Your task to perform on an android device: toggle show notifications on the lock screen Image 0: 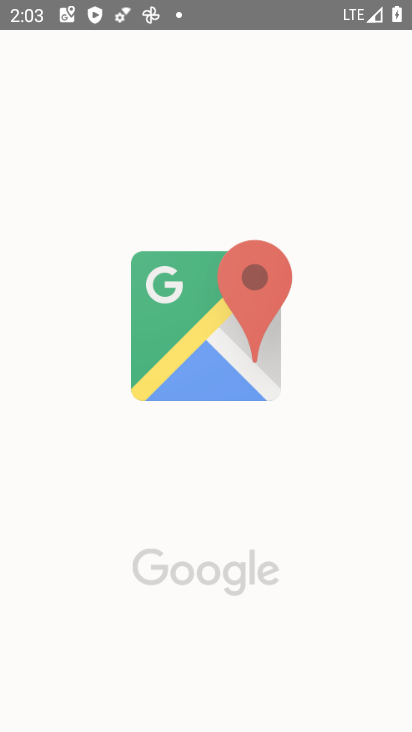
Step 0: click (257, 583)
Your task to perform on an android device: toggle show notifications on the lock screen Image 1: 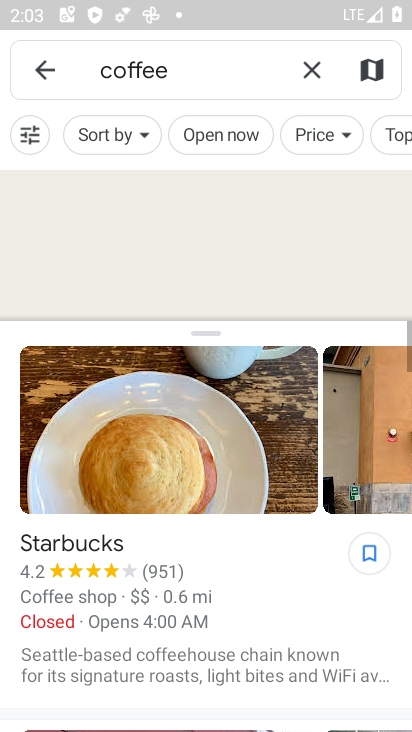
Step 1: press home button
Your task to perform on an android device: toggle show notifications on the lock screen Image 2: 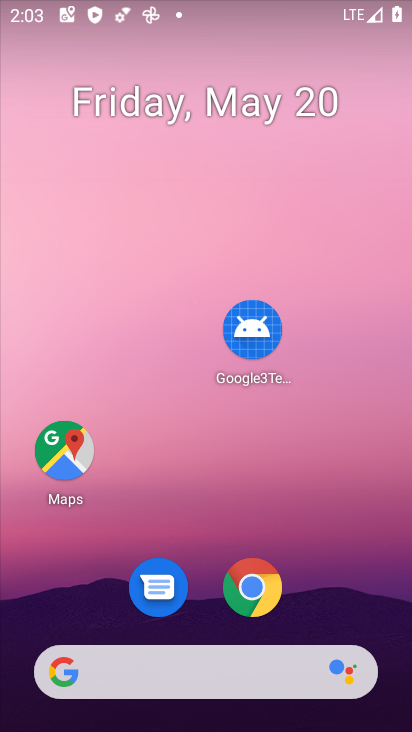
Step 2: drag from (322, 569) to (268, 111)
Your task to perform on an android device: toggle show notifications on the lock screen Image 3: 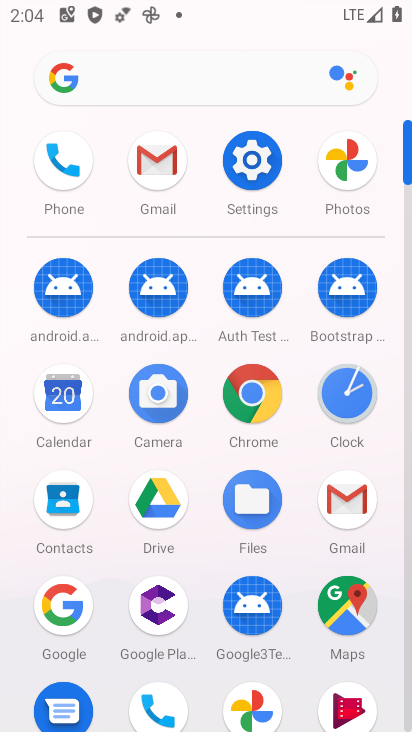
Step 3: click (256, 161)
Your task to perform on an android device: toggle show notifications on the lock screen Image 4: 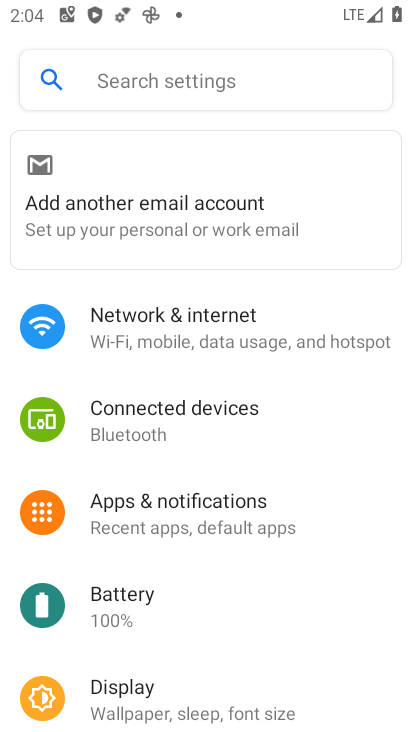
Step 4: click (209, 510)
Your task to perform on an android device: toggle show notifications on the lock screen Image 5: 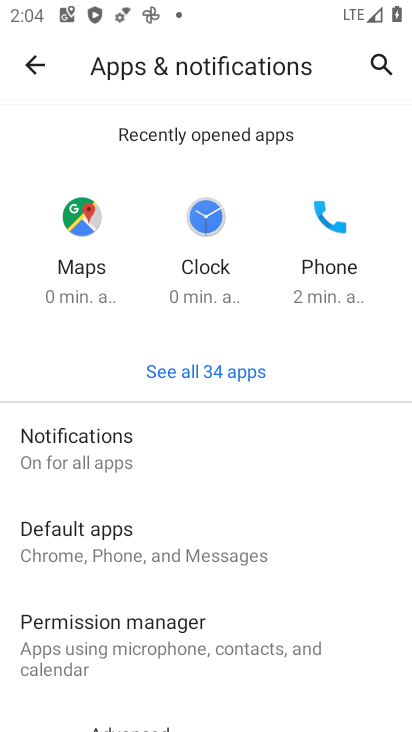
Step 5: drag from (254, 590) to (254, 164)
Your task to perform on an android device: toggle show notifications on the lock screen Image 6: 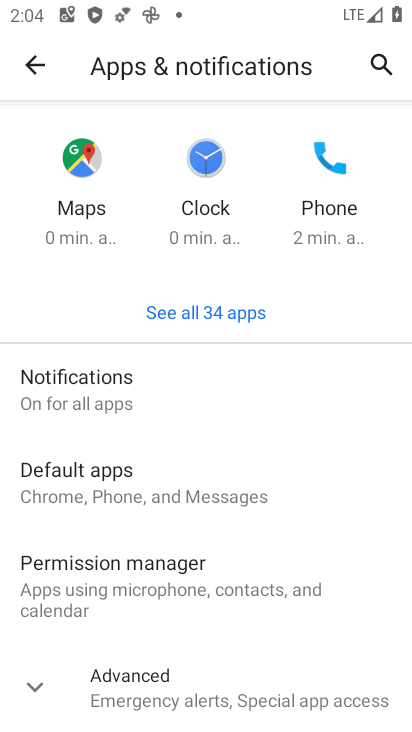
Step 6: click (77, 374)
Your task to perform on an android device: toggle show notifications on the lock screen Image 7: 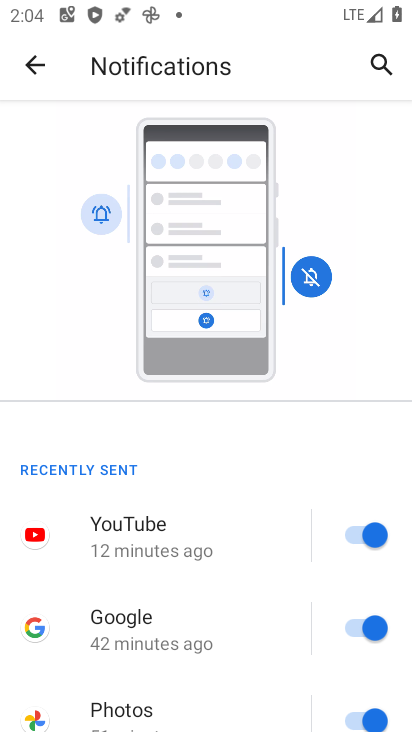
Step 7: drag from (245, 519) to (249, 163)
Your task to perform on an android device: toggle show notifications on the lock screen Image 8: 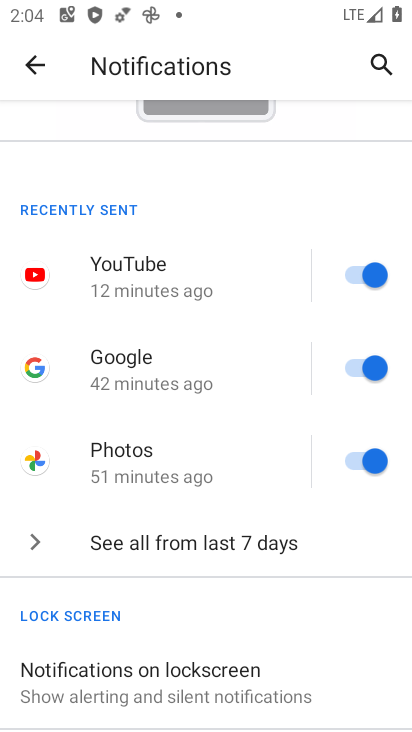
Step 8: click (191, 666)
Your task to perform on an android device: toggle show notifications on the lock screen Image 9: 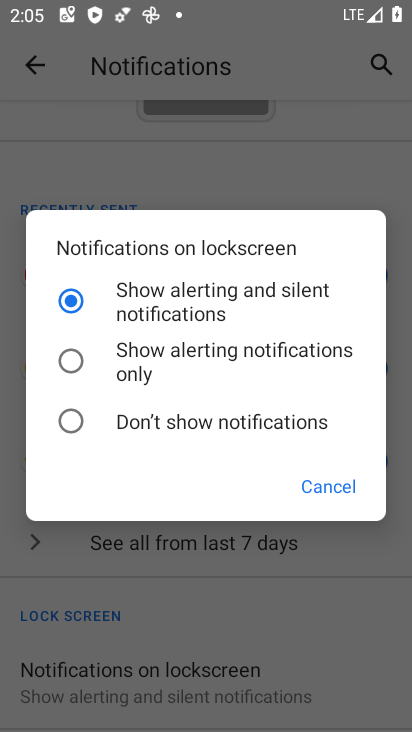
Step 9: click (76, 422)
Your task to perform on an android device: toggle show notifications on the lock screen Image 10: 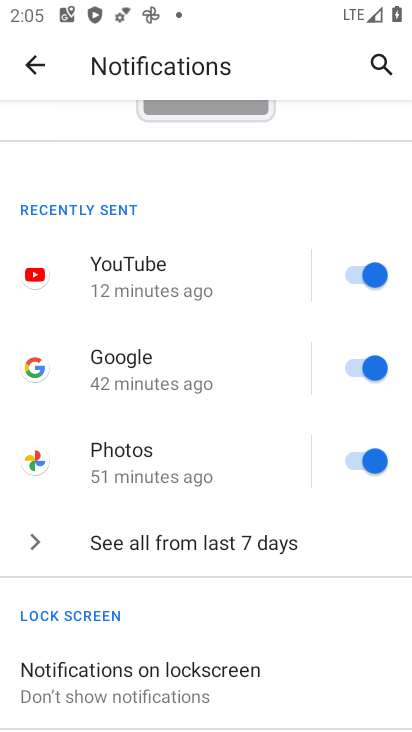
Step 10: task complete